Your task to perform on an android device: Go to internet settings Image 0: 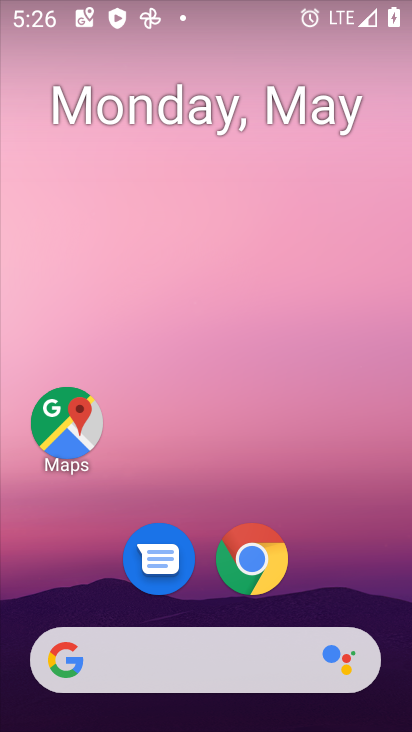
Step 0: drag from (286, 591) to (375, 25)
Your task to perform on an android device: Go to internet settings Image 1: 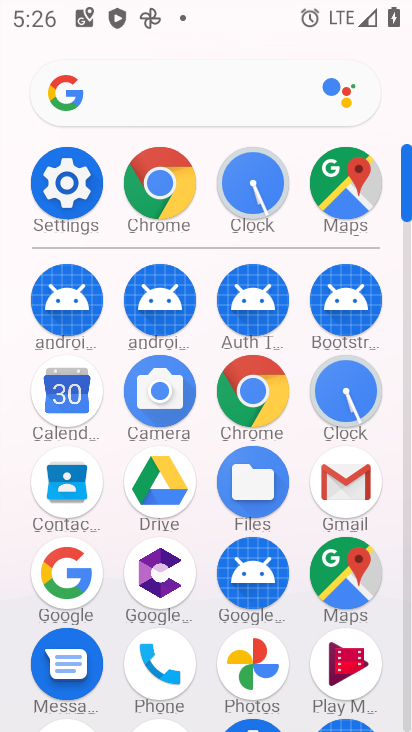
Step 1: click (51, 184)
Your task to perform on an android device: Go to internet settings Image 2: 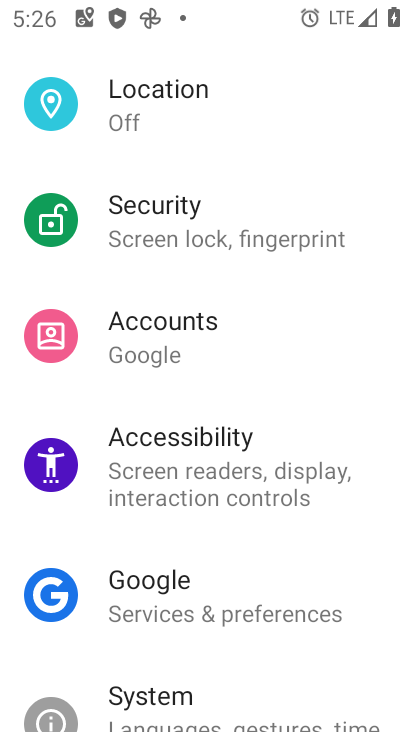
Step 2: drag from (262, 158) to (310, 721)
Your task to perform on an android device: Go to internet settings Image 3: 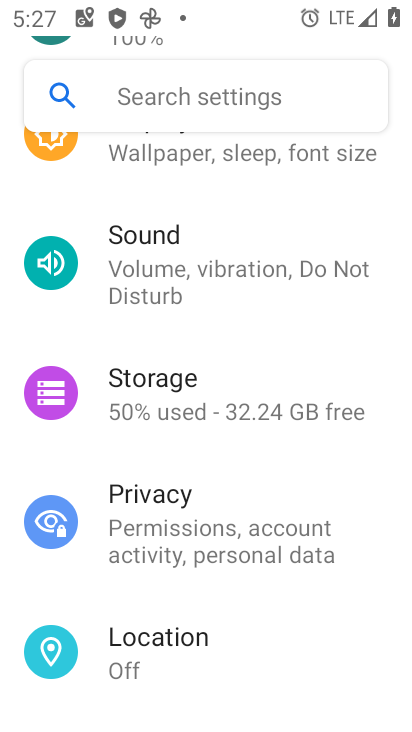
Step 3: drag from (265, 251) to (279, 730)
Your task to perform on an android device: Go to internet settings Image 4: 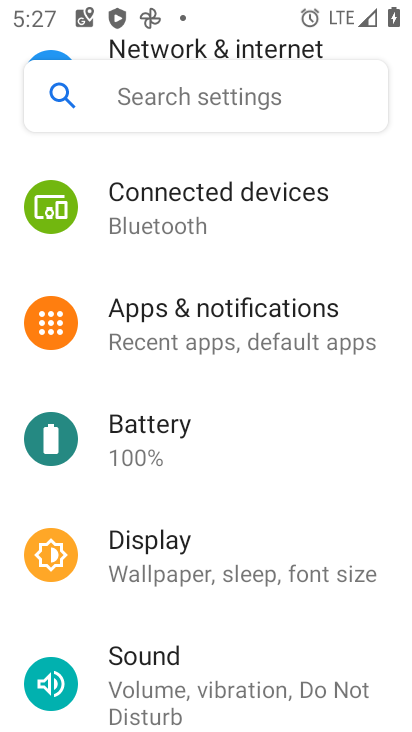
Step 4: drag from (267, 315) to (230, 424)
Your task to perform on an android device: Go to internet settings Image 5: 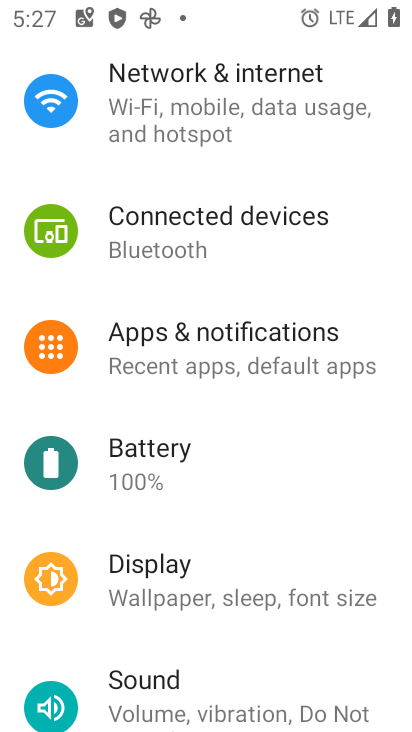
Step 5: click (216, 82)
Your task to perform on an android device: Go to internet settings Image 6: 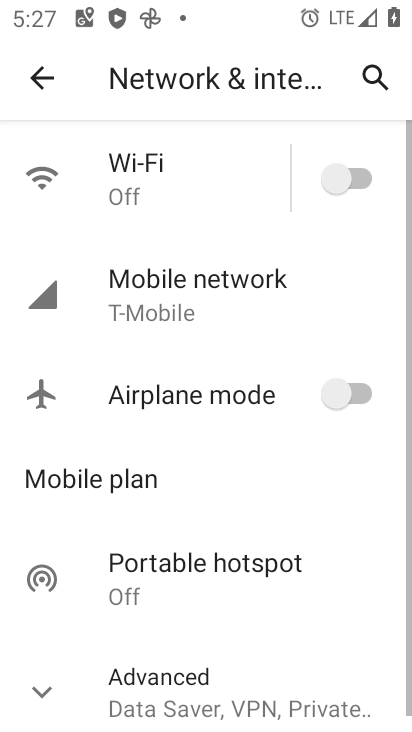
Step 6: task complete